Your task to perform on an android device: add a contact in the contacts app Image 0: 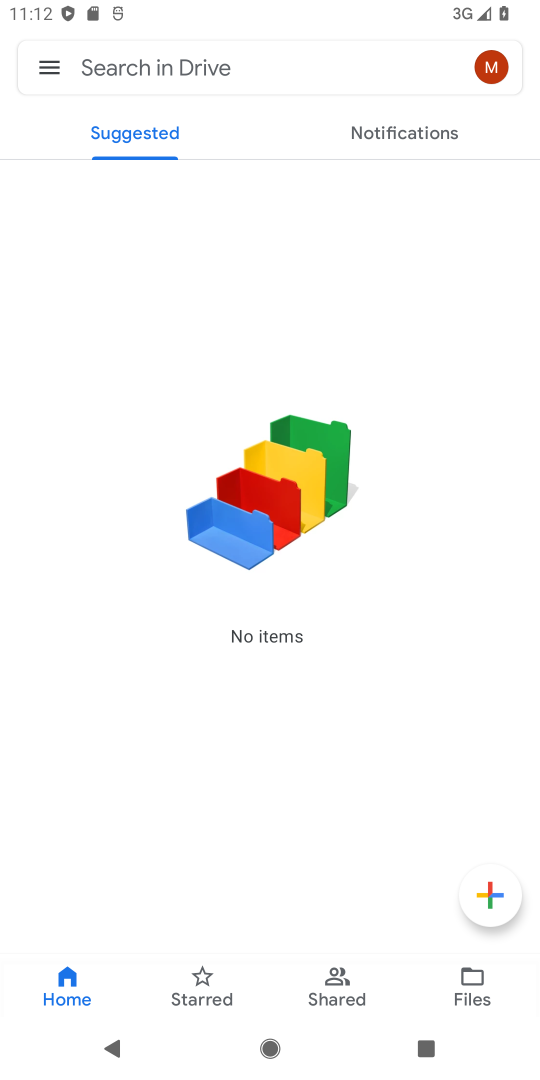
Step 0: press home button
Your task to perform on an android device: add a contact in the contacts app Image 1: 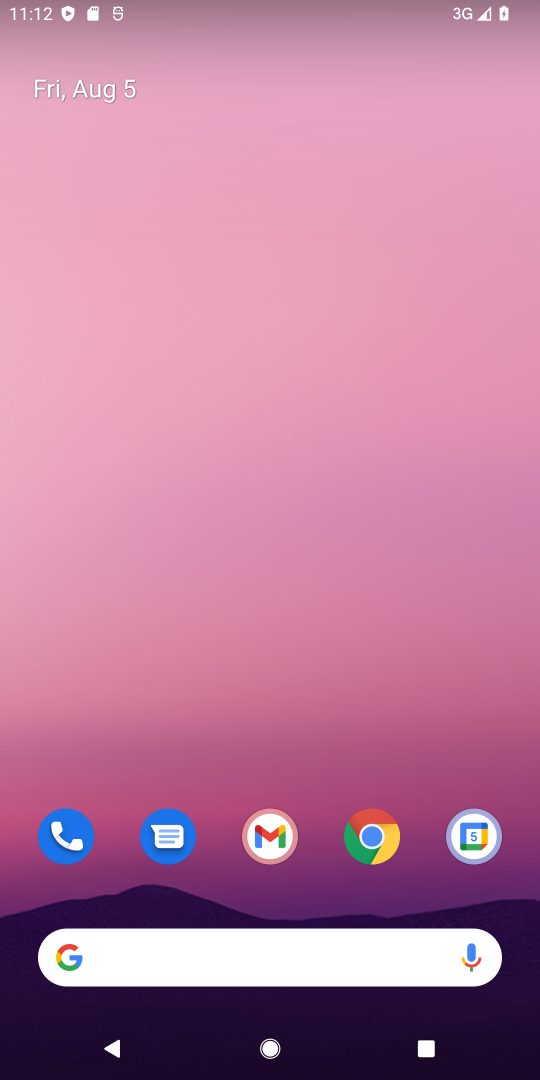
Step 1: drag from (389, 759) to (428, 151)
Your task to perform on an android device: add a contact in the contacts app Image 2: 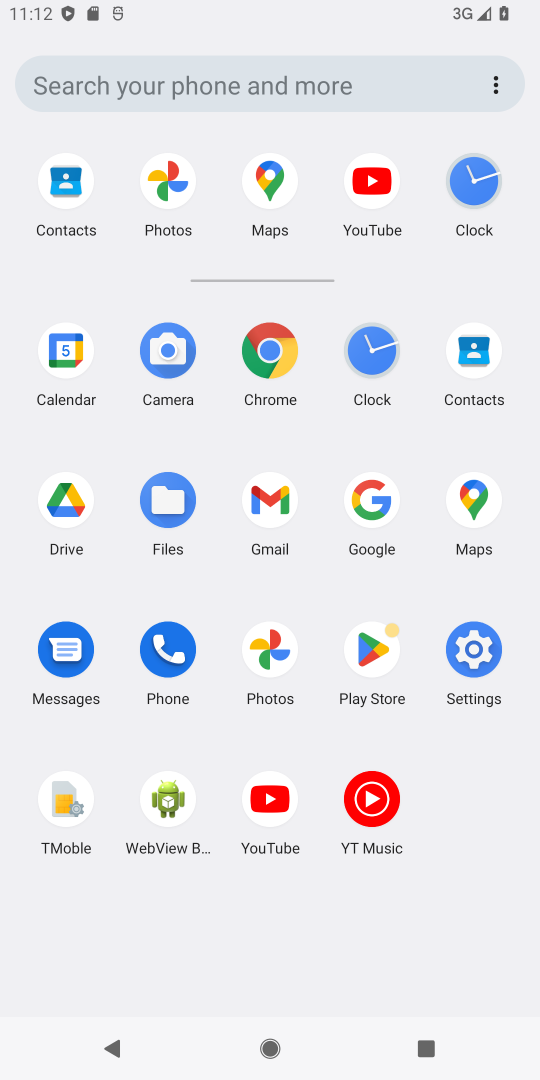
Step 2: click (466, 341)
Your task to perform on an android device: add a contact in the contacts app Image 3: 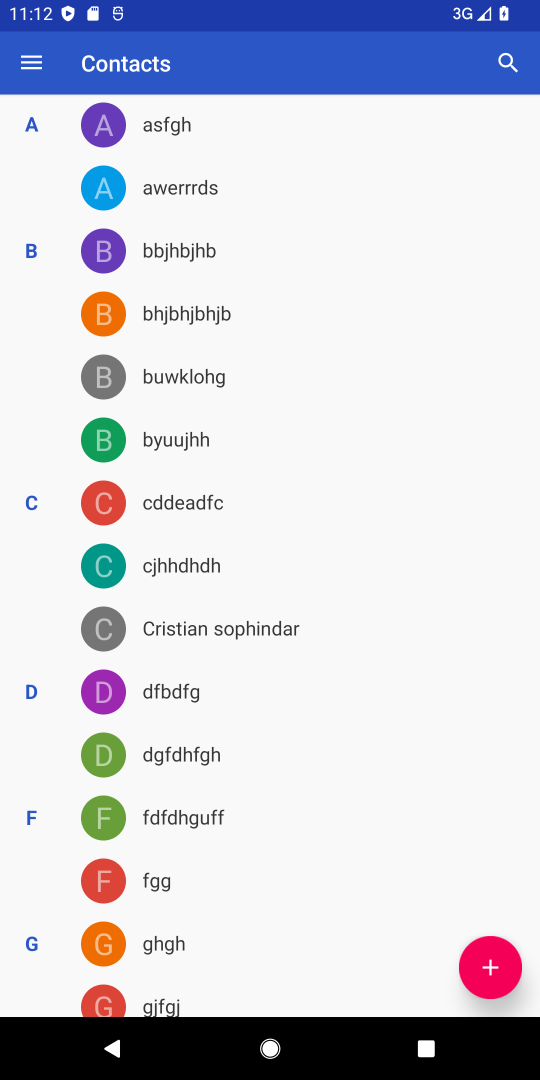
Step 3: click (496, 967)
Your task to perform on an android device: add a contact in the contacts app Image 4: 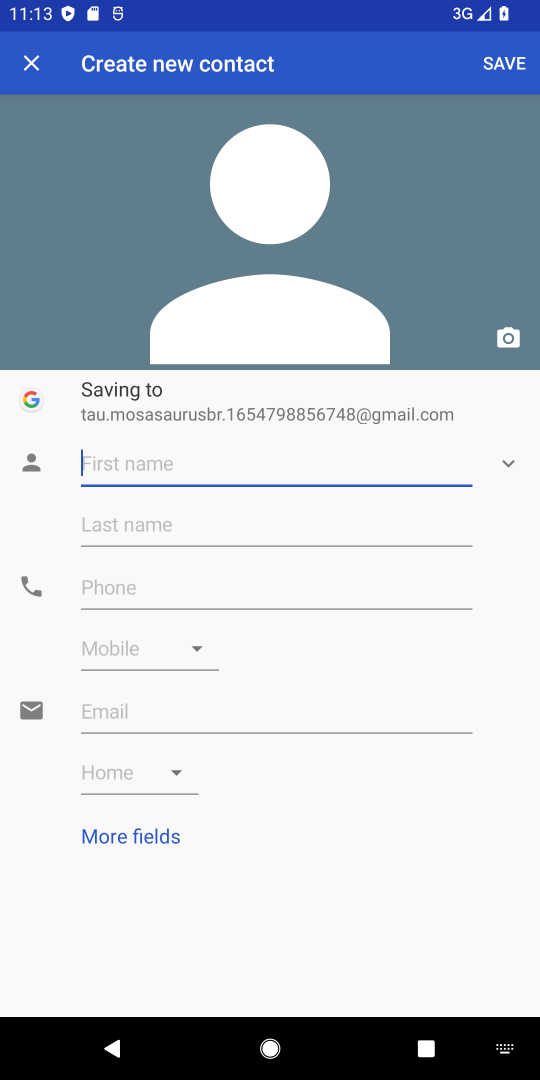
Step 4: type "do "
Your task to perform on an android device: add a contact in the contacts app Image 5: 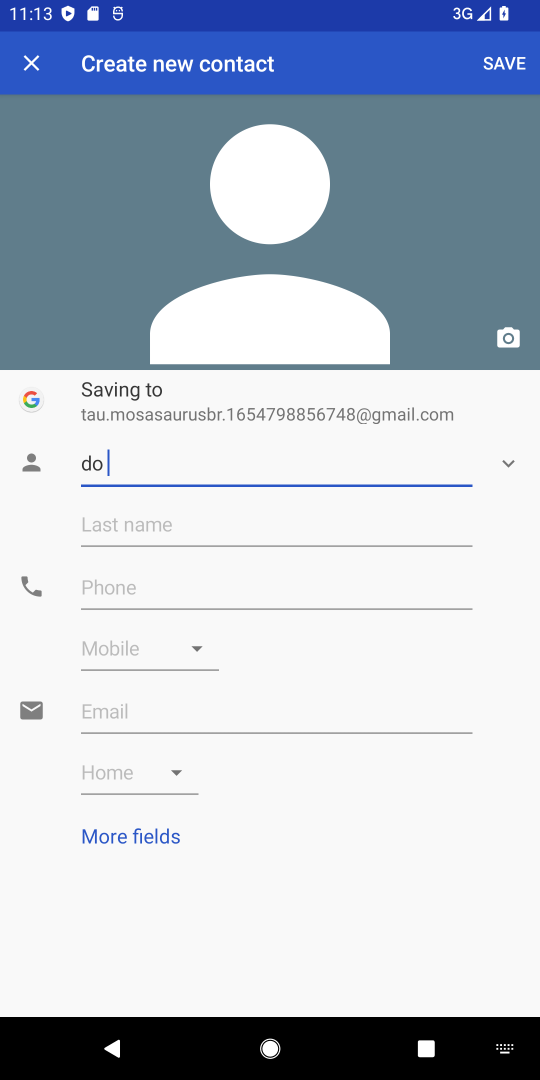
Step 5: click (498, 62)
Your task to perform on an android device: add a contact in the contacts app Image 6: 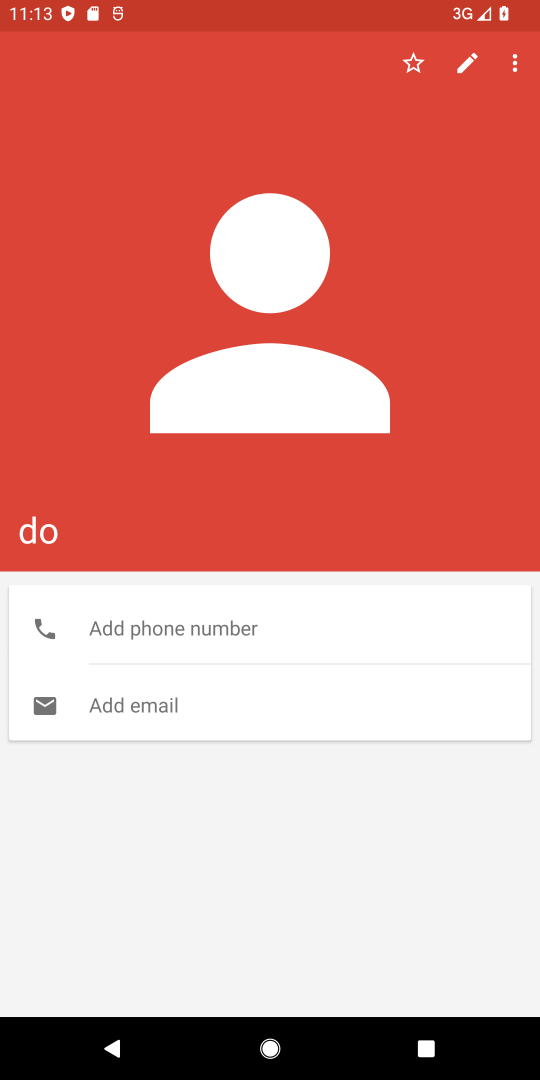
Step 6: task complete